Your task to perform on an android device: Show me popular games on the Play Store Image 0: 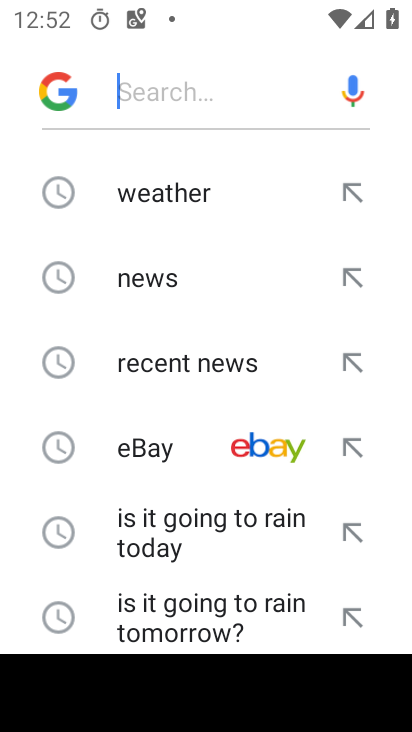
Step 0: press back button
Your task to perform on an android device: Show me popular games on the Play Store Image 1: 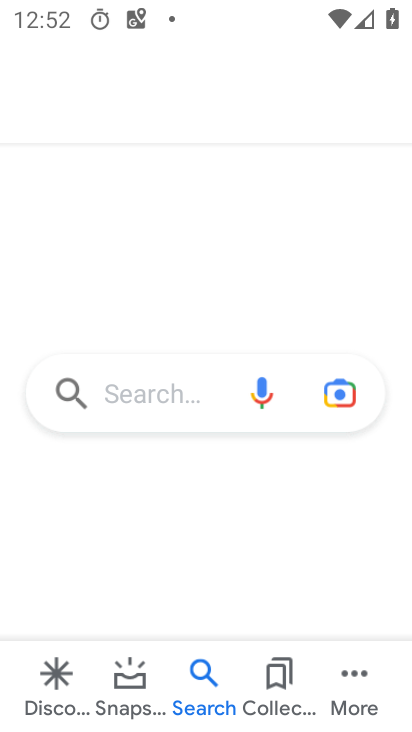
Step 1: press back button
Your task to perform on an android device: Show me popular games on the Play Store Image 2: 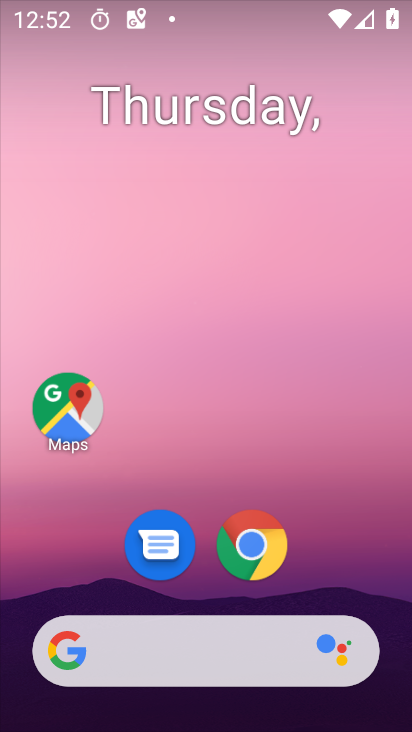
Step 2: drag from (11, 668) to (240, 156)
Your task to perform on an android device: Show me popular games on the Play Store Image 3: 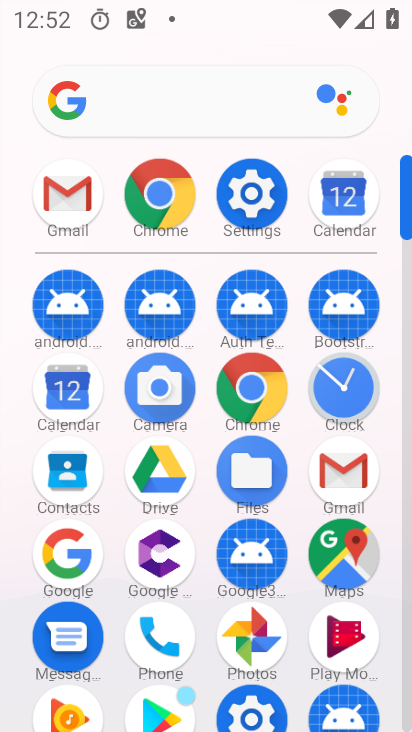
Step 3: click (156, 704)
Your task to perform on an android device: Show me popular games on the Play Store Image 4: 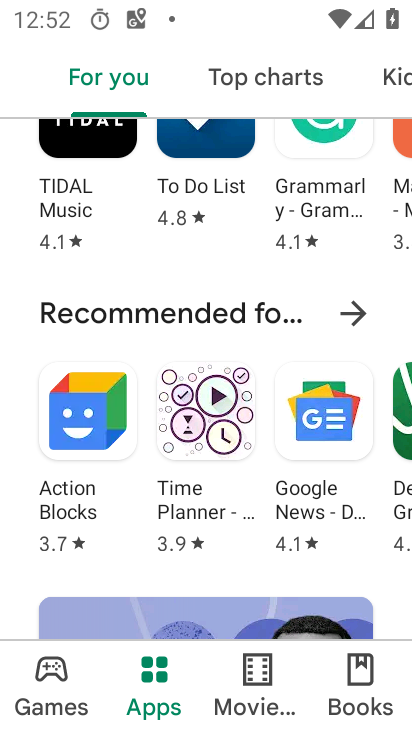
Step 4: click (34, 692)
Your task to perform on an android device: Show me popular games on the Play Store Image 5: 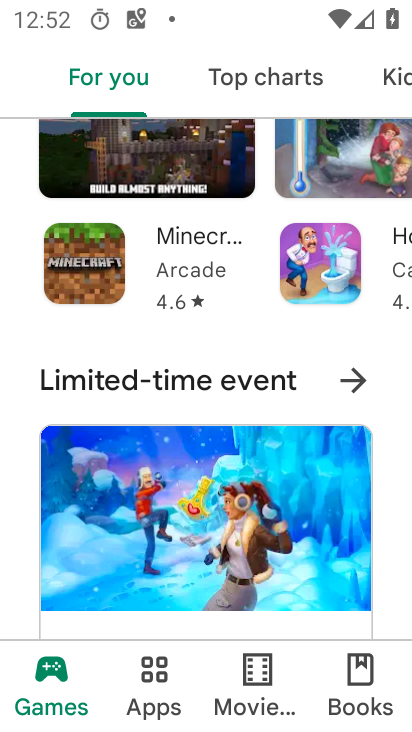
Step 5: task complete